Your task to perform on an android device: toggle pop-ups in chrome Image 0: 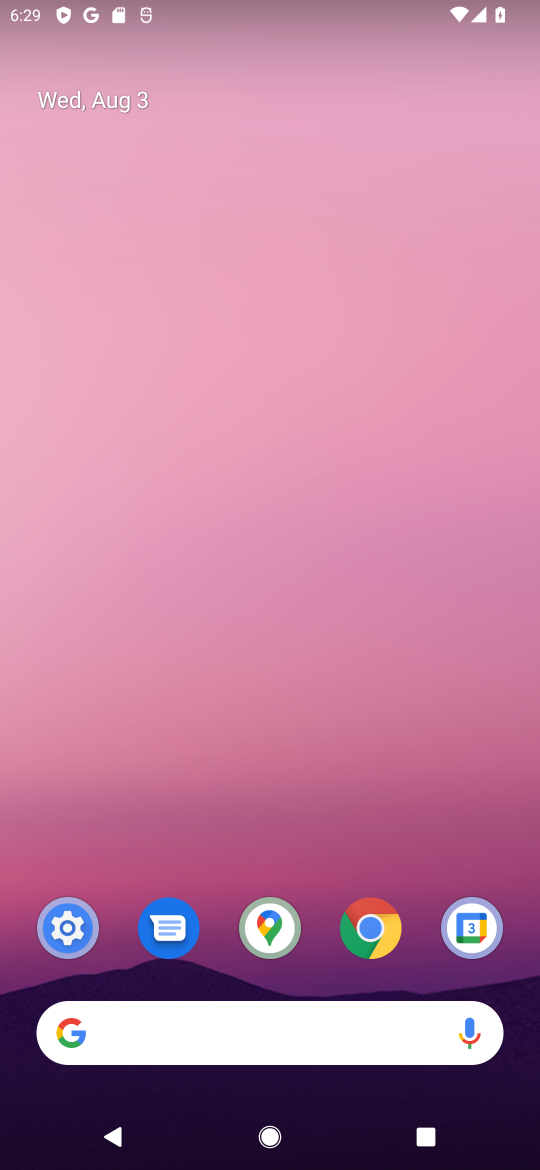
Step 0: press home button
Your task to perform on an android device: toggle pop-ups in chrome Image 1: 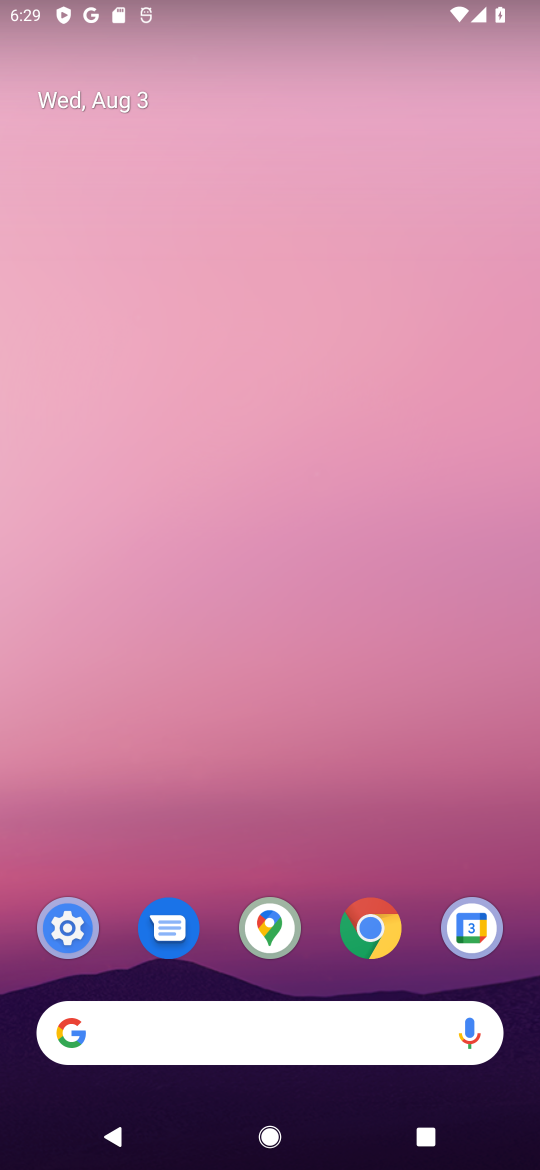
Step 1: drag from (325, 817) to (317, 20)
Your task to perform on an android device: toggle pop-ups in chrome Image 2: 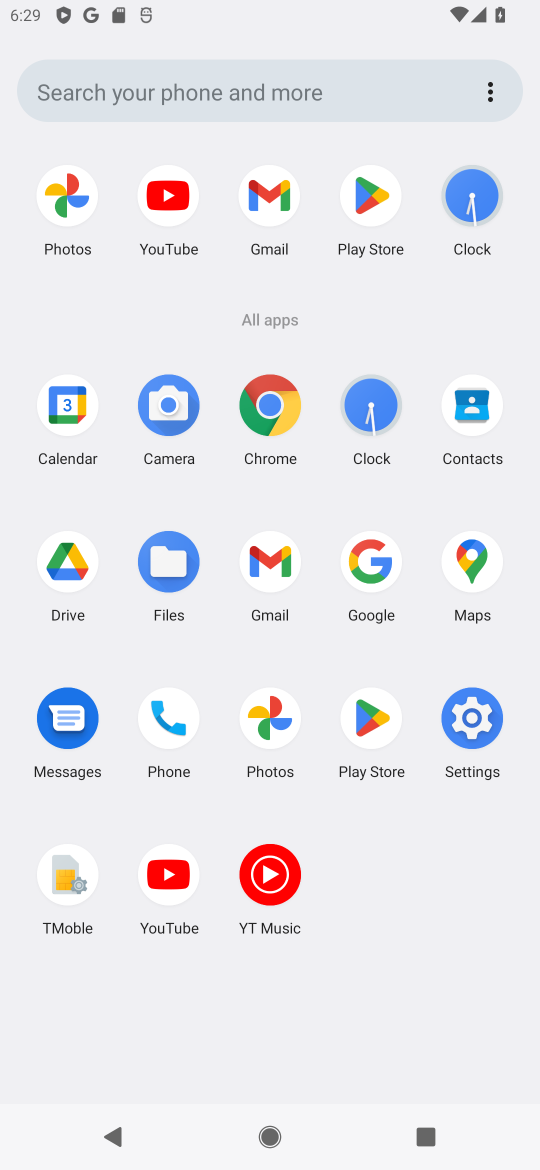
Step 2: click (282, 415)
Your task to perform on an android device: toggle pop-ups in chrome Image 3: 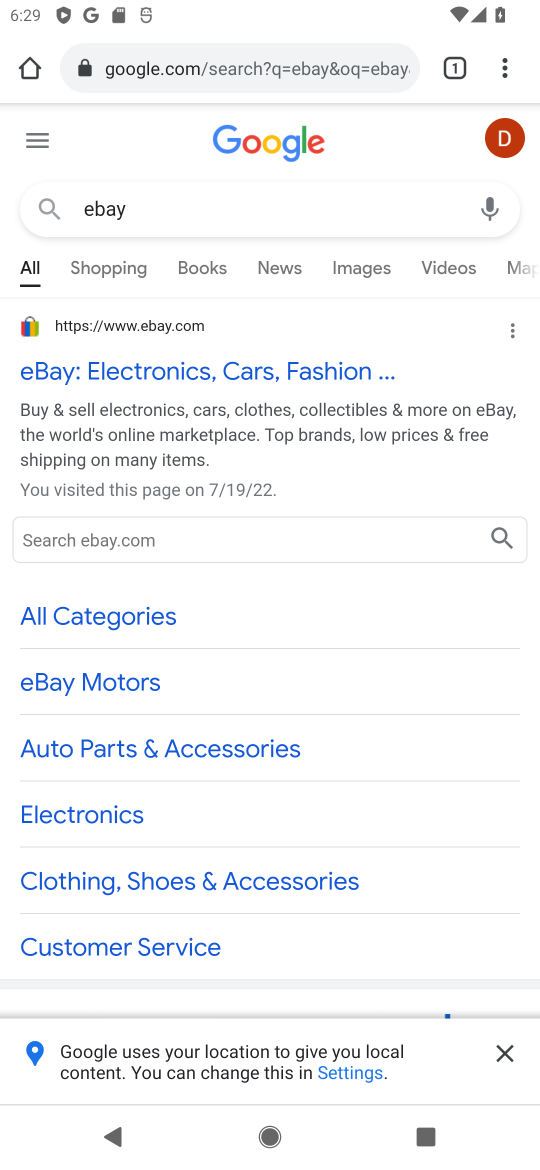
Step 3: click (502, 70)
Your task to perform on an android device: toggle pop-ups in chrome Image 4: 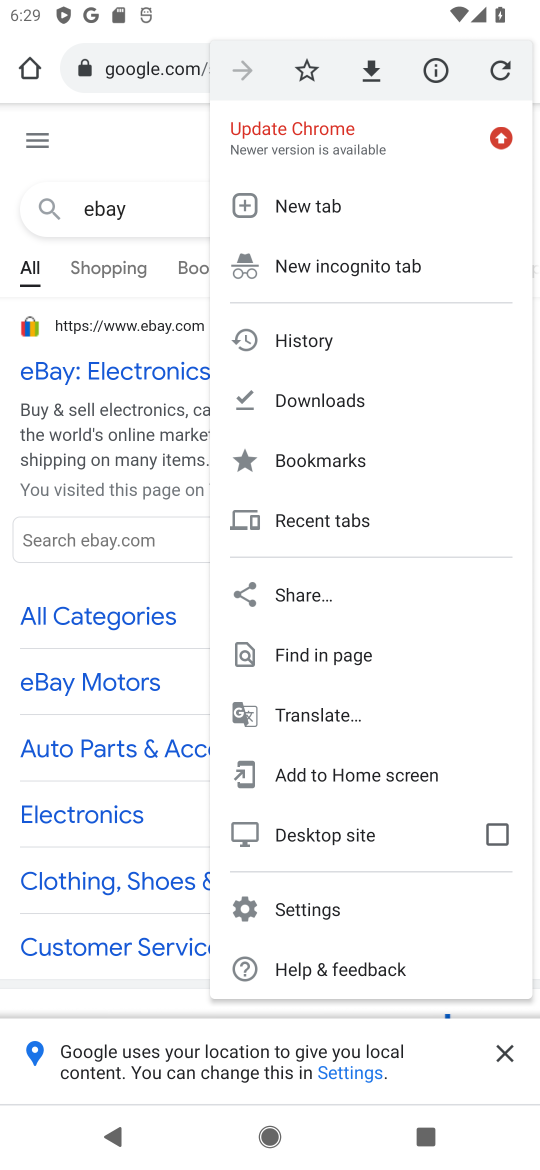
Step 4: click (409, 911)
Your task to perform on an android device: toggle pop-ups in chrome Image 5: 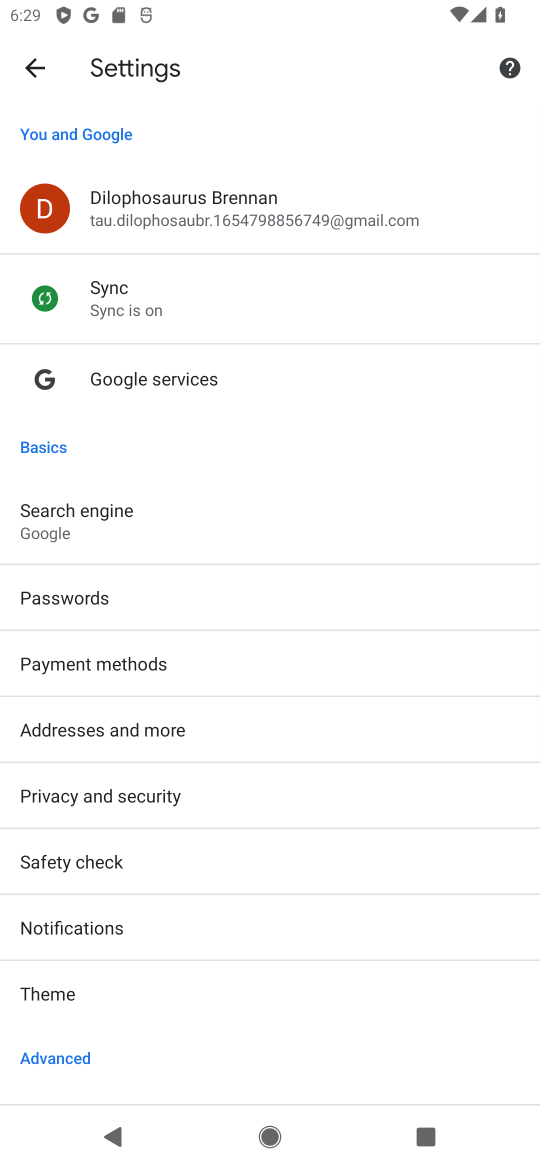
Step 5: drag from (306, 750) to (330, 579)
Your task to perform on an android device: toggle pop-ups in chrome Image 6: 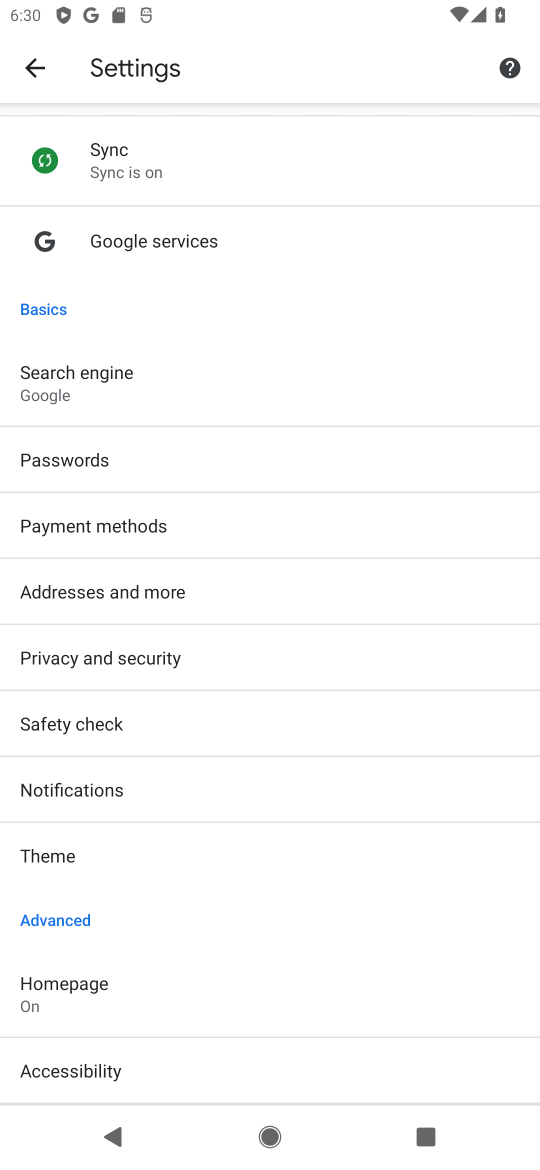
Step 6: drag from (353, 814) to (359, 587)
Your task to perform on an android device: toggle pop-ups in chrome Image 7: 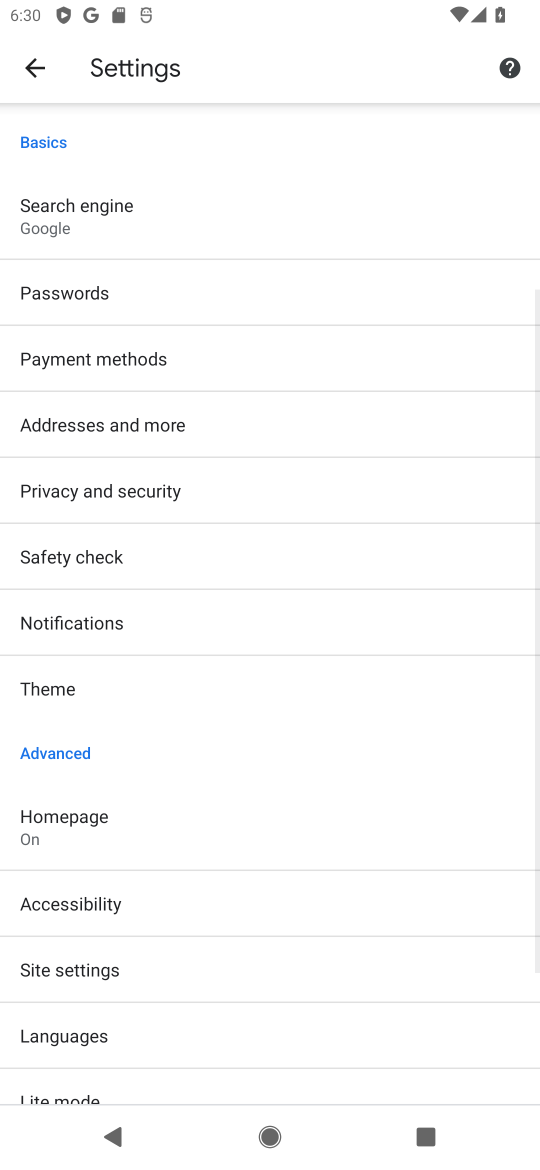
Step 7: drag from (375, 841) to (381, 623)
Your task to perform on an android device: toggle pop-ups in chrome Image 8: 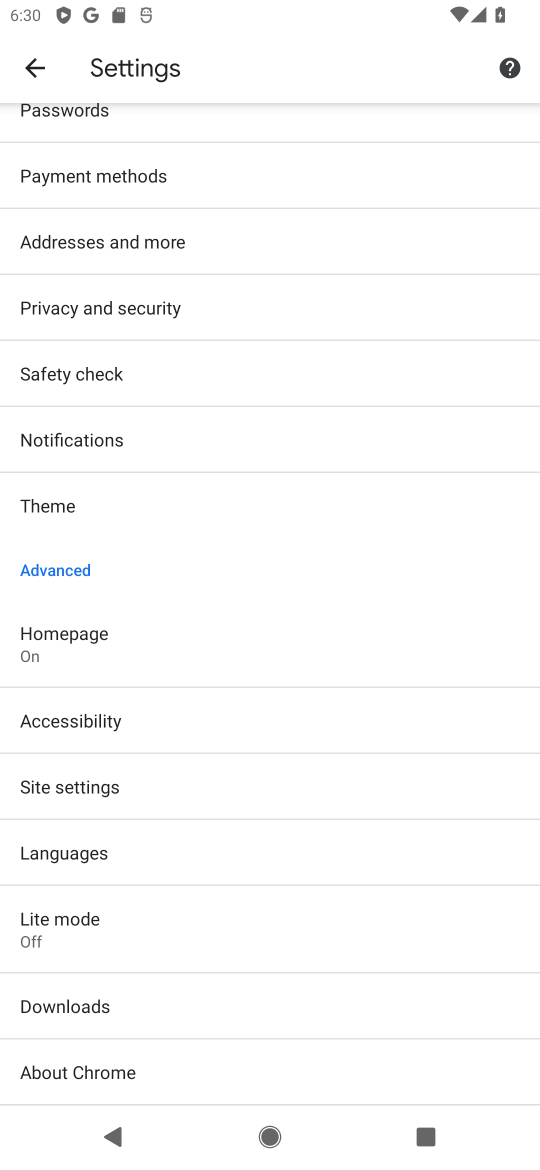
Step 8: drag from (394, 913) to (413, 683)
Your task to perform on an android device: toggle pop-ups in chrome Image 9: 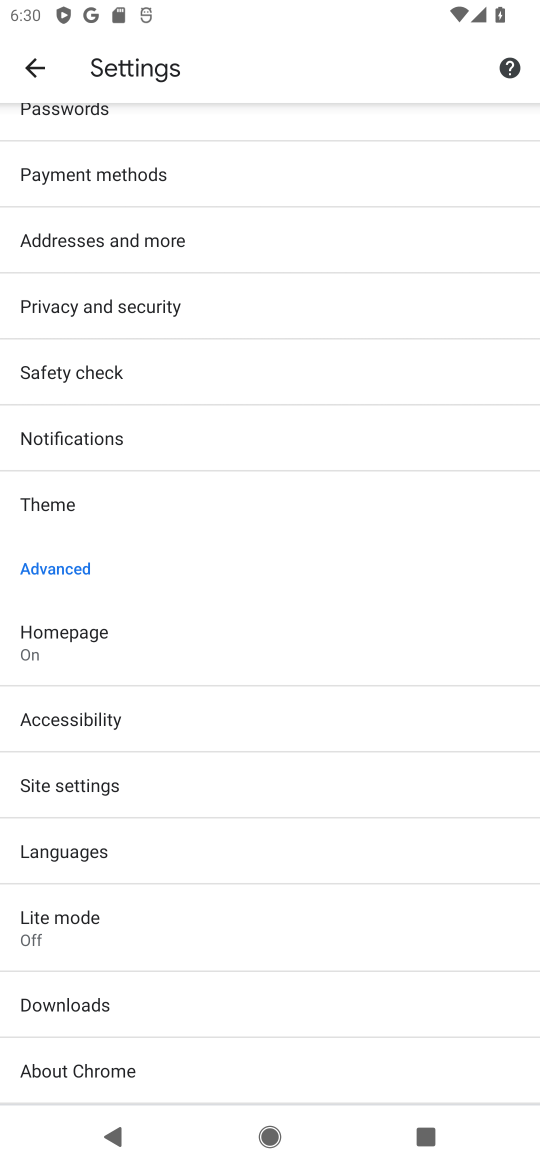
Step 9: click (271, 793)
Your task to perform on an android device: toggle pop-ups in chrome Image 10: 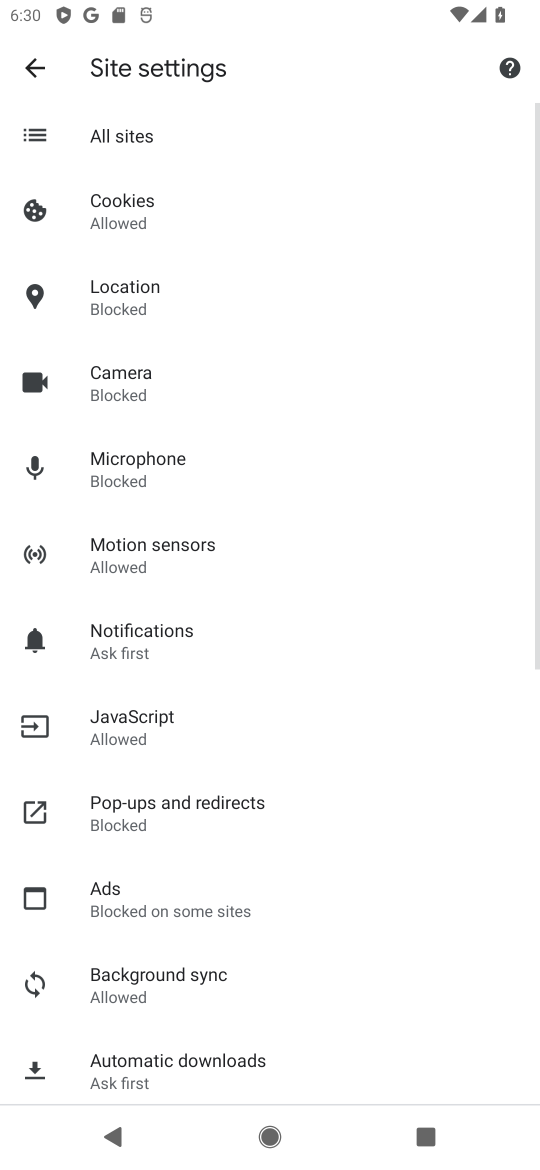
Step 10: drag from (393, 892) to (394, 718)
Your task to perform on an android device: toggle pop-ups in chrome Image 11: 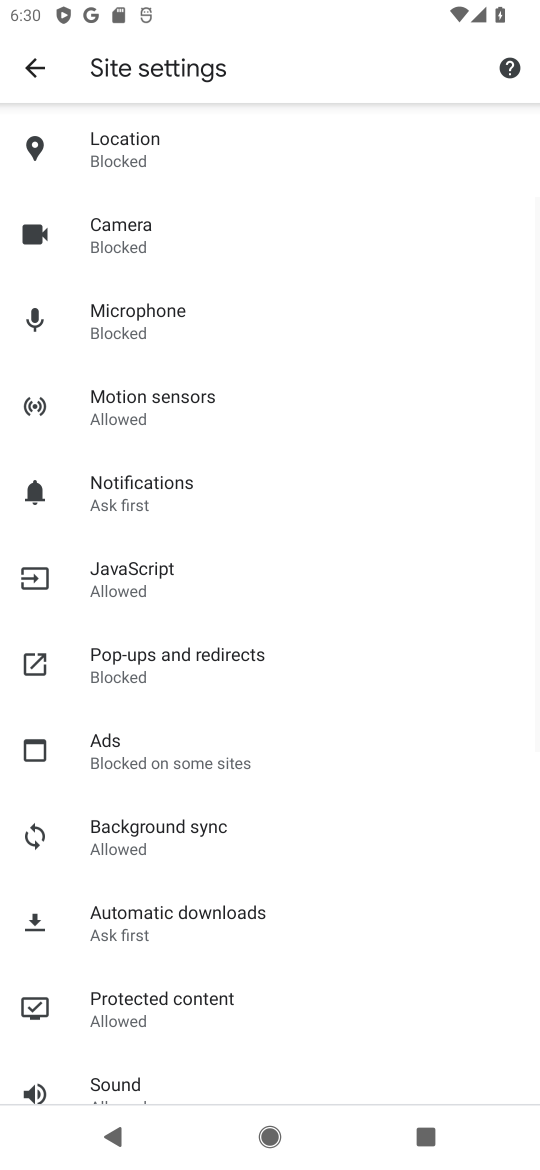
Step 11: drag from (384, 915) to (393, 713)
Your task to perform on an android device: toggle pop-ups in chrome Image 12: 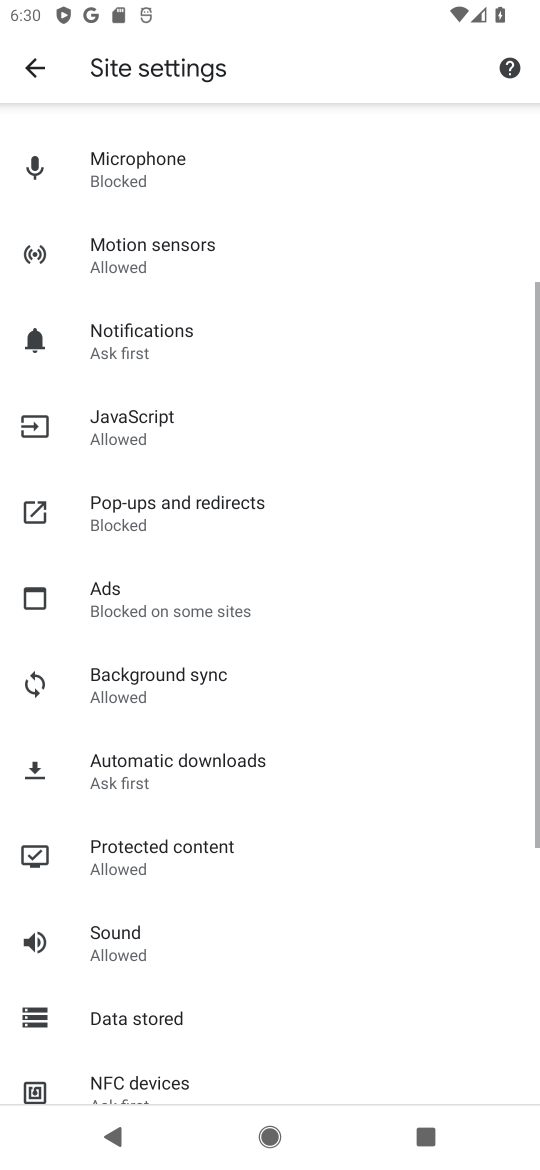
Step 12: drag from (358, 946) to (366, 728)
Your task to perform on an android device: toggle pop-ups in chrome Image 13: 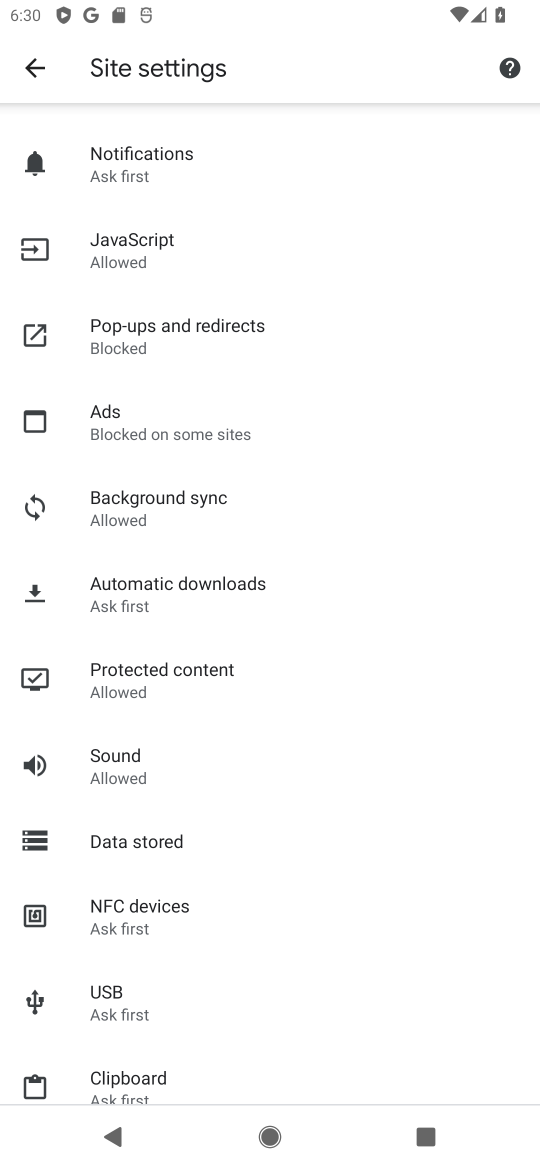
Step 13: drag from (353, 926) to (384, 592)
Your task to perform on an android device: toggle pop-ups in chrome Image 14: 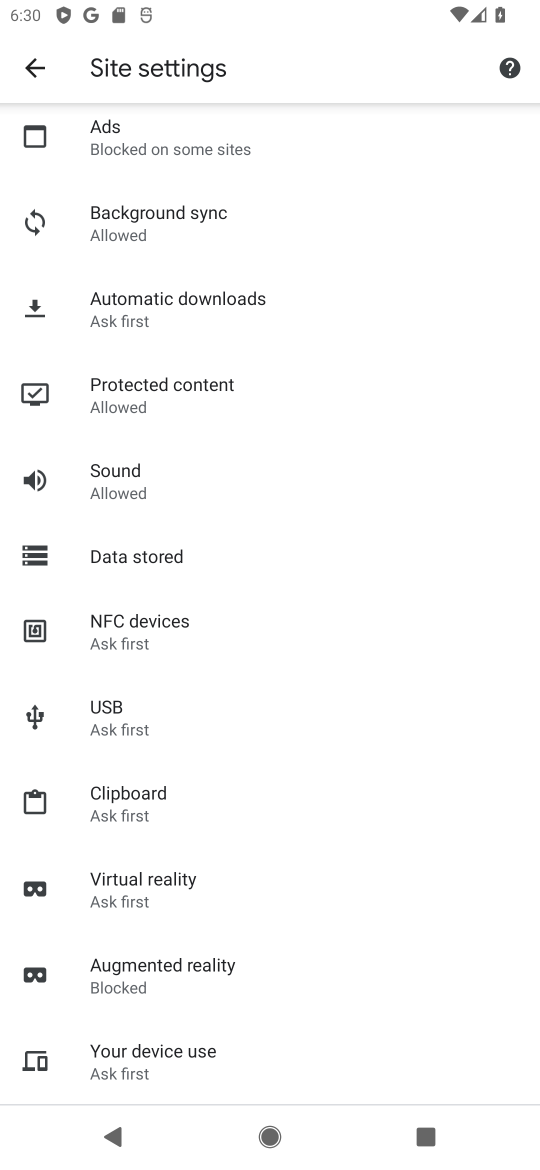
Step 14: drag from (356, 971) to (346, 595)
Your task to perform on an android device: toggle pop-ups in chrome Image 15: 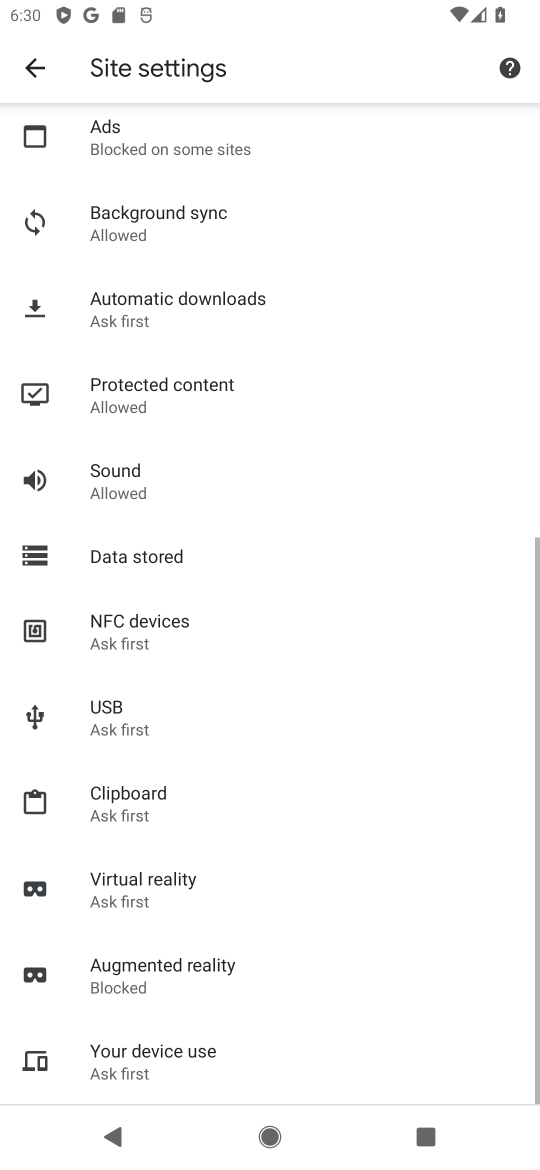
Step 15: drag from (380, 468) to (386, 716)
Your task to perform on an android device: toggle pop-ups in chrome Image 16: 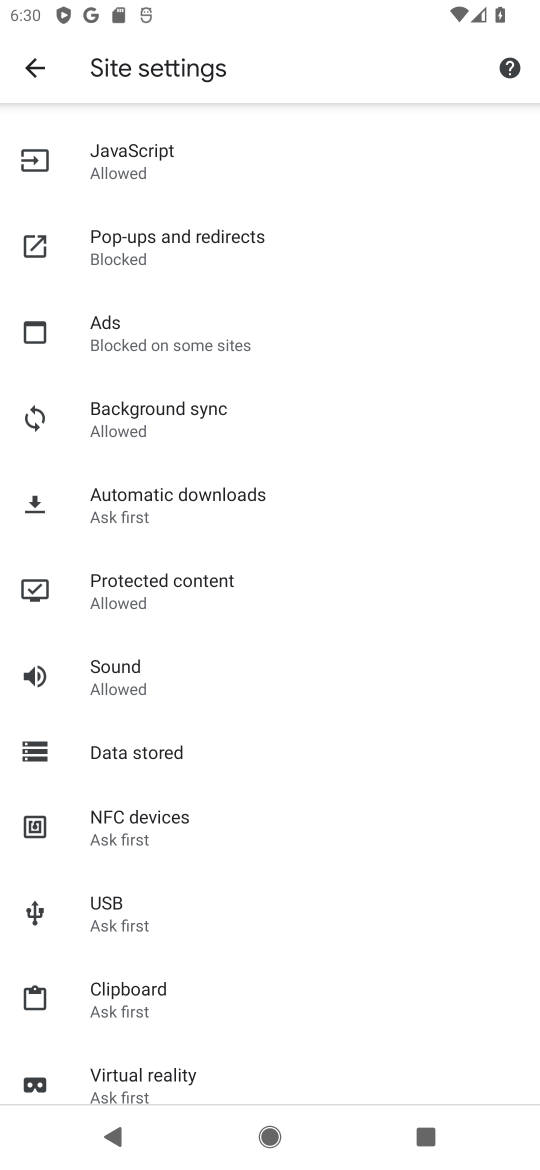
Step 16: drag from (412, 425) to (408, 654)
Your task to perform on an android device: toggle pop-ups in chrome Image 17: 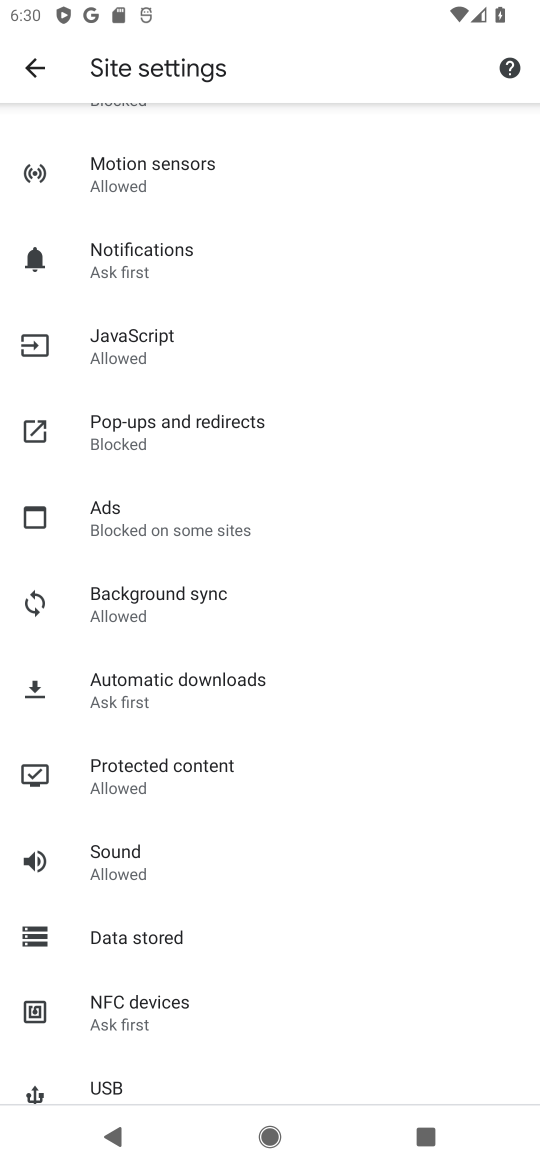
Step 17: click (224, 442)
Your task to perform on an android device: toggle pop-ups in chrome Image 18: 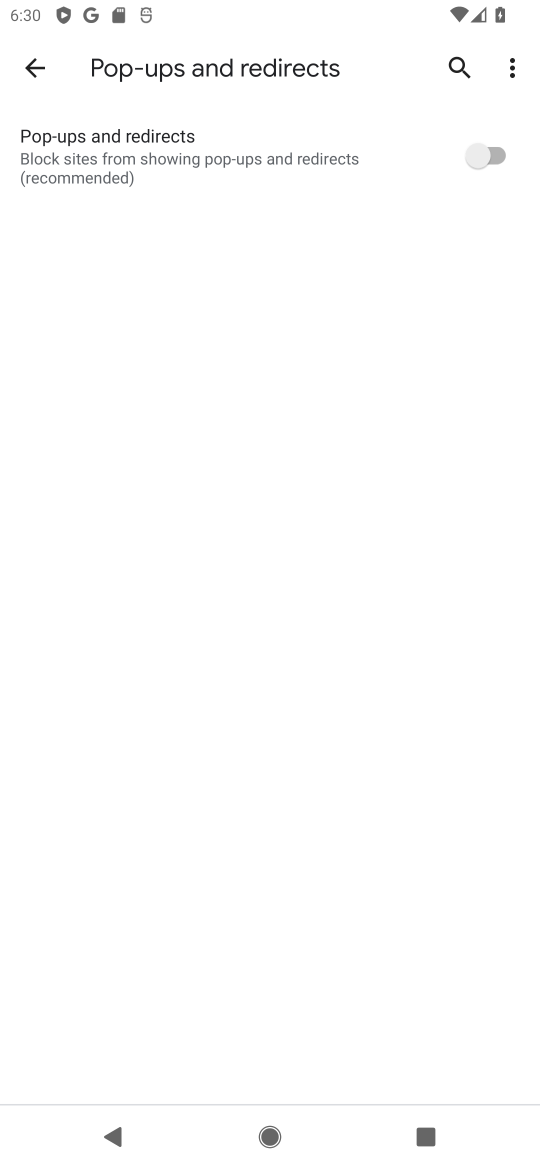
Step 18: click (482, 151)
Your task to perform on an android device: toggle pop-ups in chrome Image 19: 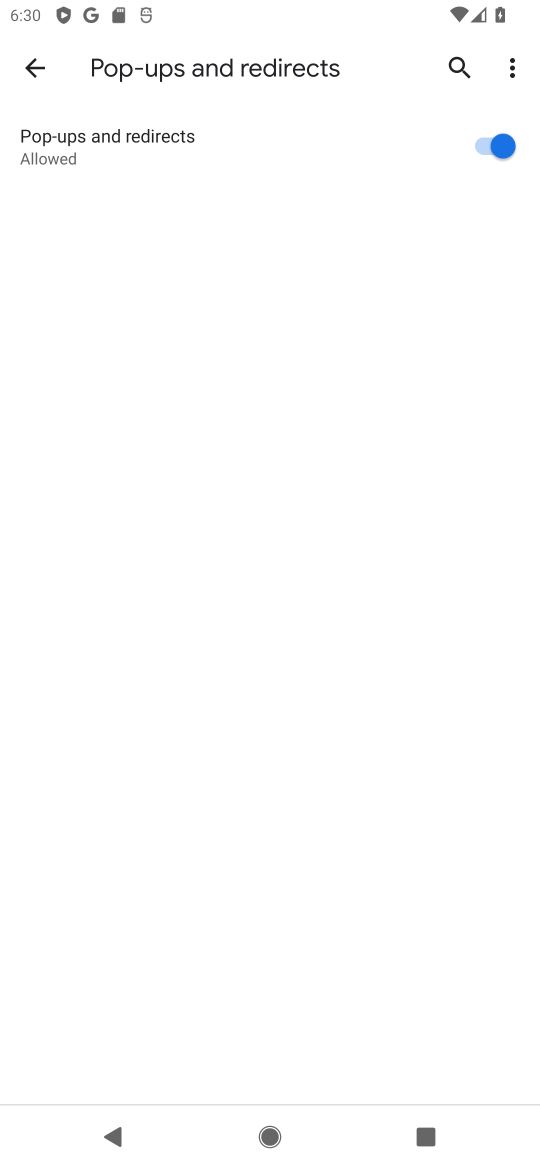
Step 19: task complete